Your task to perform on an android device: Open Wikipedia Image 0: 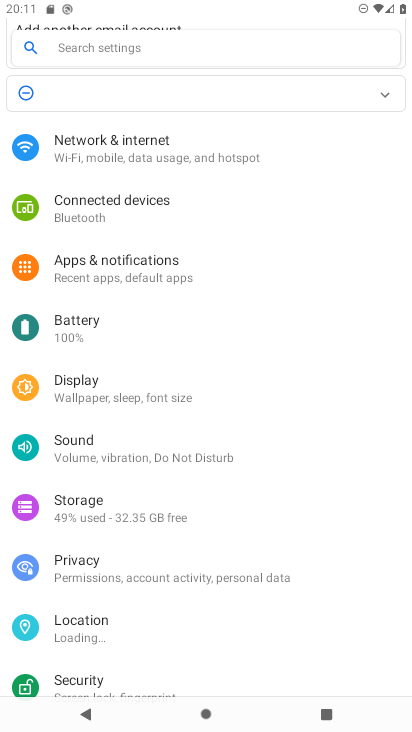
Step 0: press home button
Your task to perform on an android device: Open Wikipedia Image 1: 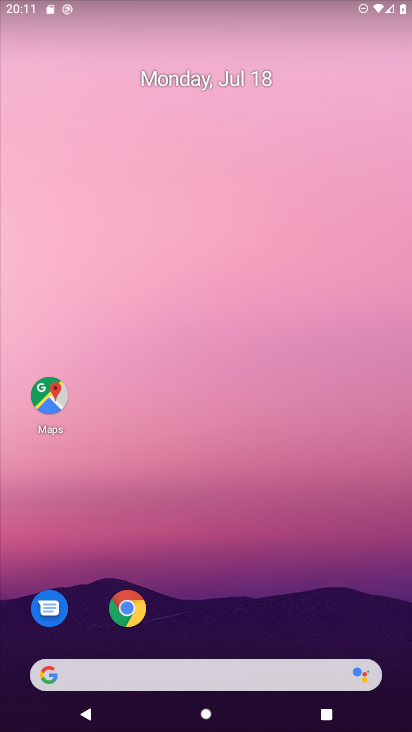
Step 1: click (123, 609)
Your task to perform on an android device: Open Wikipedia Image 2: 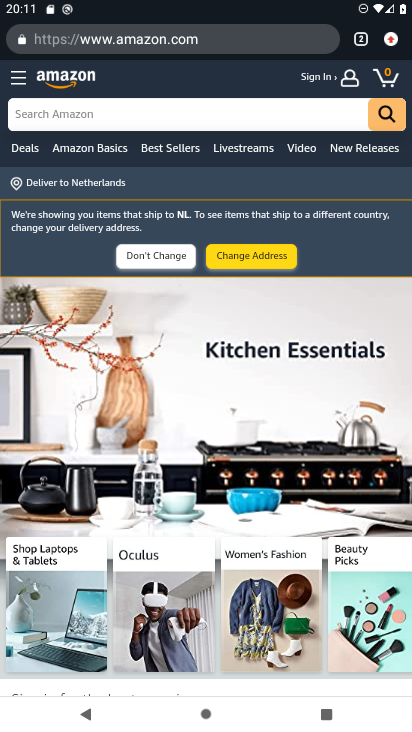
Step 2: press back button
Your task to perform on an android device: Open Wikipedia Image 3: 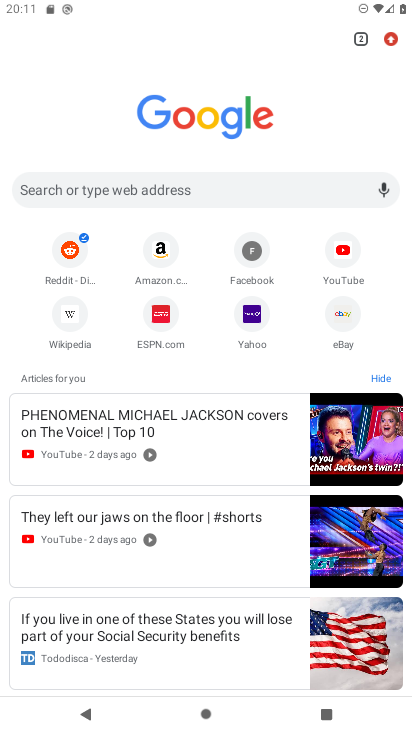
Step 3: click (72, 318)
Your task to perform on an android device: Open Wikipedia Image 4: 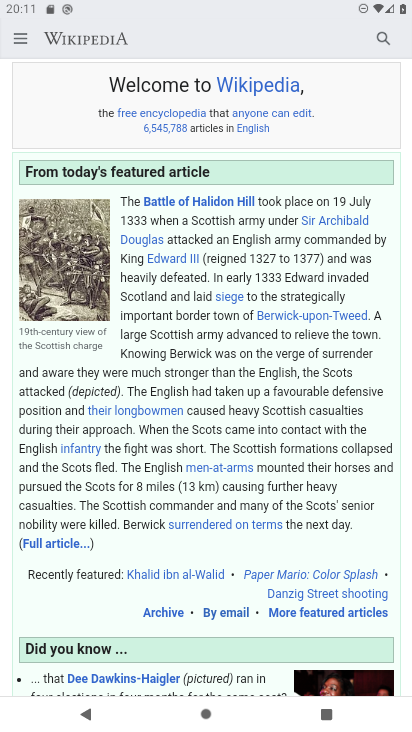
Step 4: task complete